Your task to perform on an android device: What's the weather going to be tomorrow? Image 0: 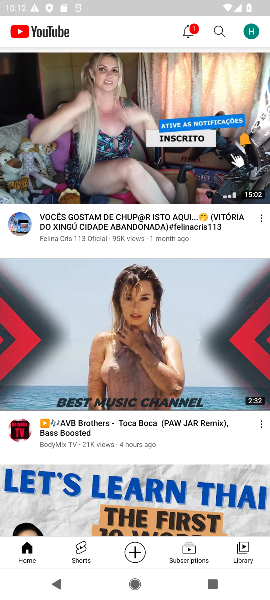
Step 0: press home button
Your task to perform on an android device: What's the weather going to be tomorrow? Image 1: 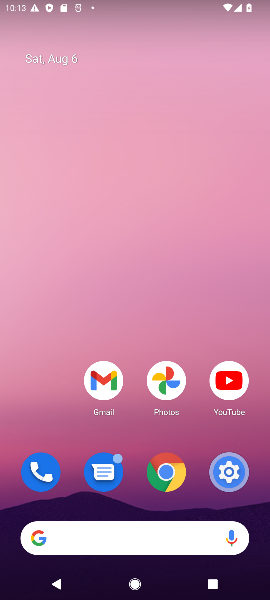
Step 1: drag from (209, 511) to (111, 39)
Your task to perform on an android device: What's the weather going to be tomorrow? Image 2: 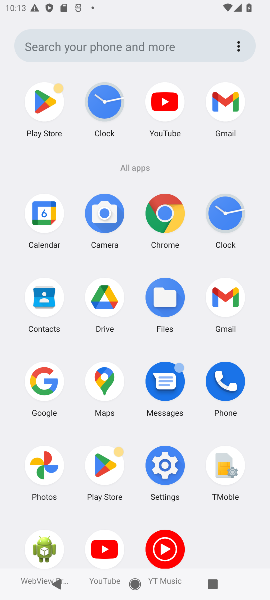
Step 2: click (40, 388)
Your task to perform on an android device: What's the weather going to be tomorrow? Image 3: 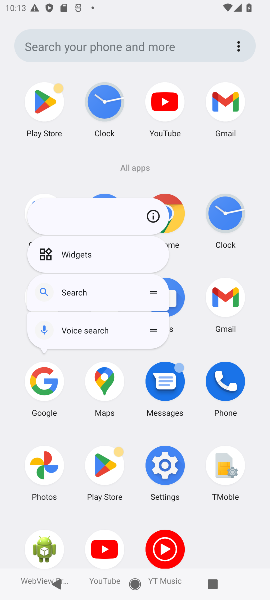
Step 3: click (40, 388)
Your task to perform on an android device: What's the weather going to be tomorrow? Image 4: 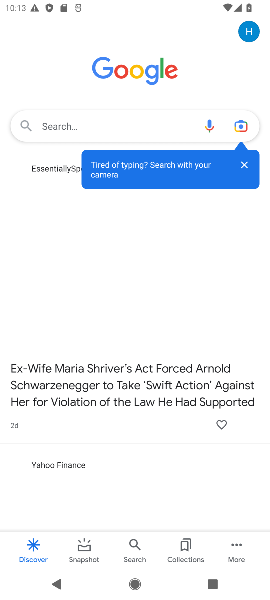
Step 4: click (84, 125)
Your task to perform on an android device: What's the weather going to be tomorrow? Image 5: 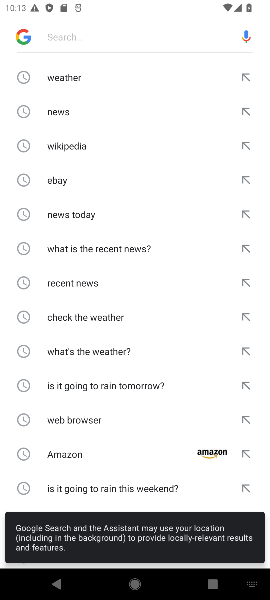
Step 5: task complete